Your task to perform on an android device: Open Yahoo.com Image 0: 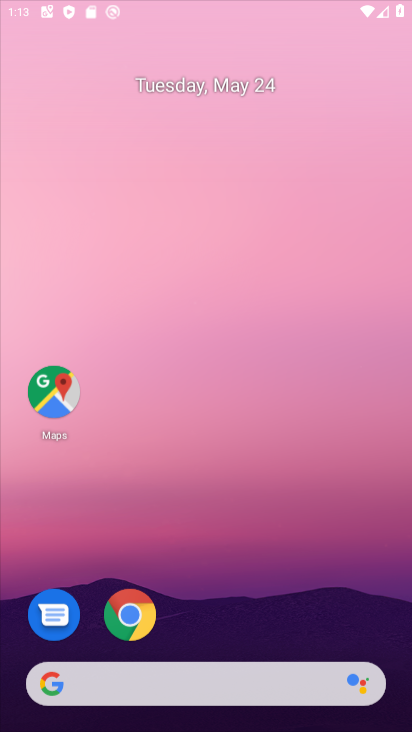
Step 0: press home button
Your task to perform on an android device: Open Yahoo.com Image 1: 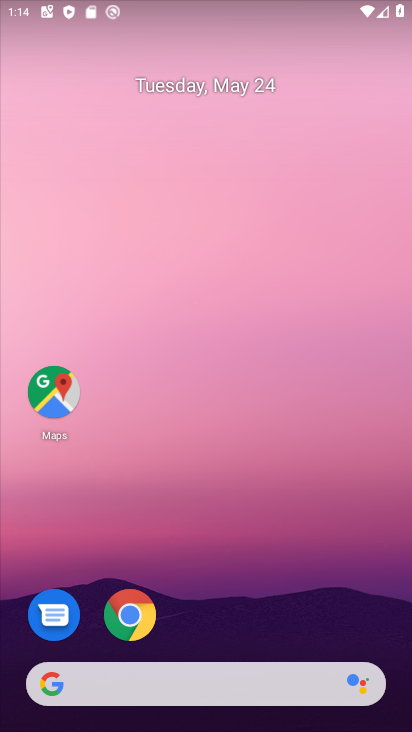
Step 1: click (126, 603)
Your task to perform on an android device: Open Yahoo.com Image 2: 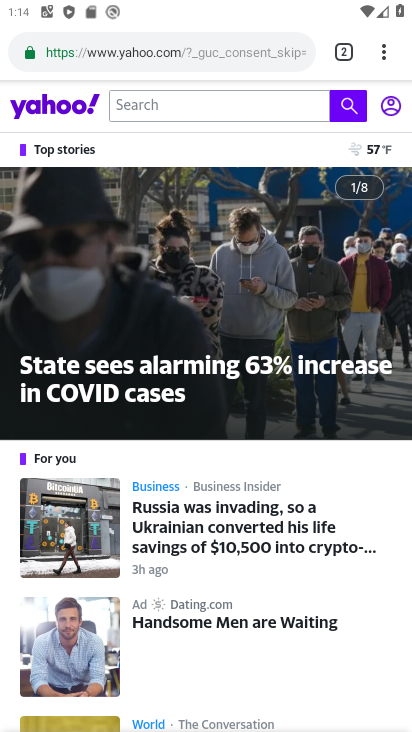
Step 2: task complete